Your task to perform on an android device: choose inbox layout in the gmail app Image 0: 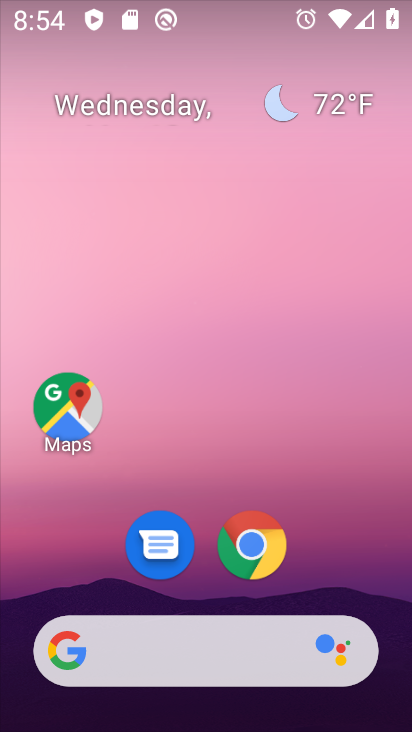
Step 0: drag from (266, 684) to (145, 249)
Your task to perform on an android device: choose inbox layout in the gmail app Image 1: 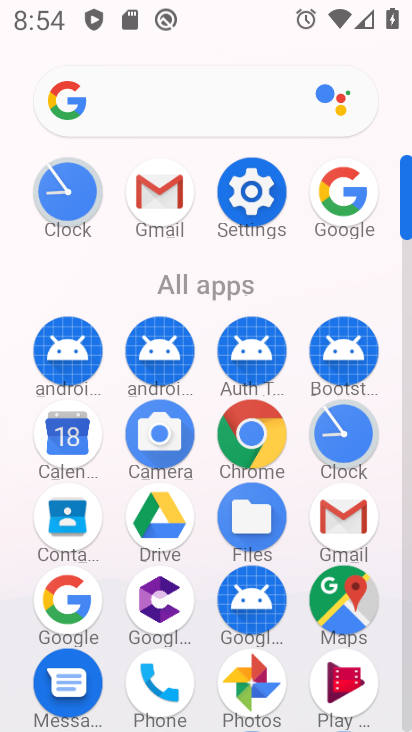
Step 1: click (325, 498)
Your task to perform on an android device: choose inbox layout in the gmail app Image 2: 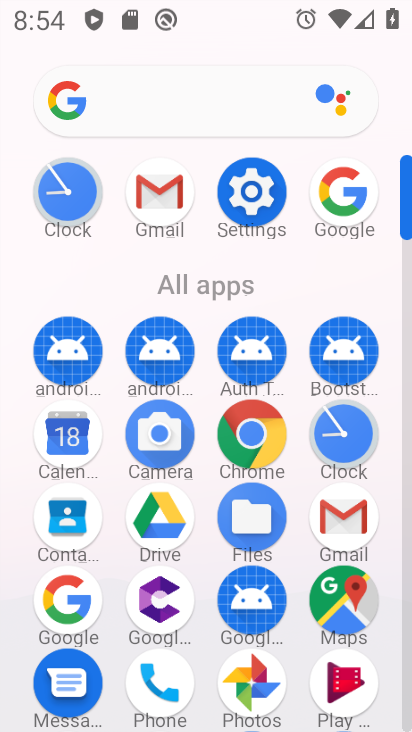
Step 2: click (325, 503)
Your task to perform on an android device: choose inbox layout in the gmail app Image 3: 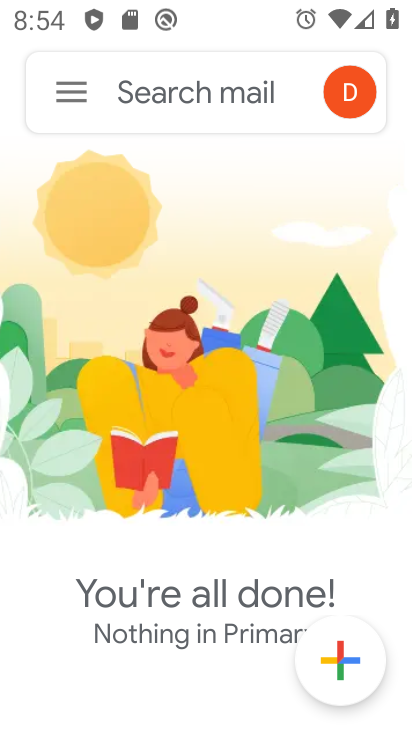
Step 3: click (48, 93)
Your task to perform on an android device: choose inbox layout in the gmail app Image 4: 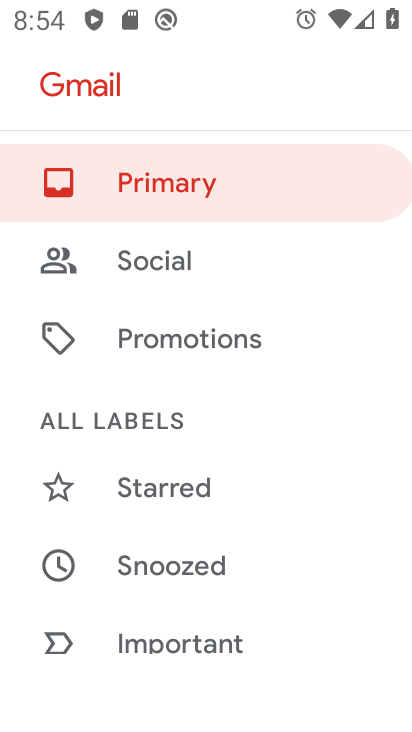
Step 4: drag from (173, 540) to (161, 191)
Your task to perform on an android device: choose inbox layout in the gmail app Image 5: 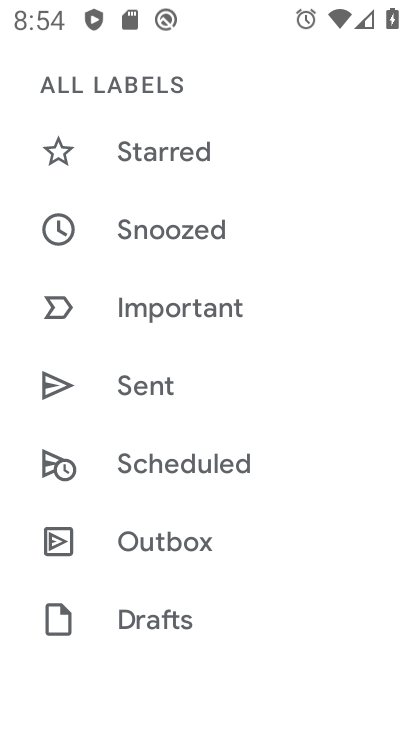
Step 5: click (204, 28)
Your task to perform on an android device: choose inbox layout in the gmail app Image 6: 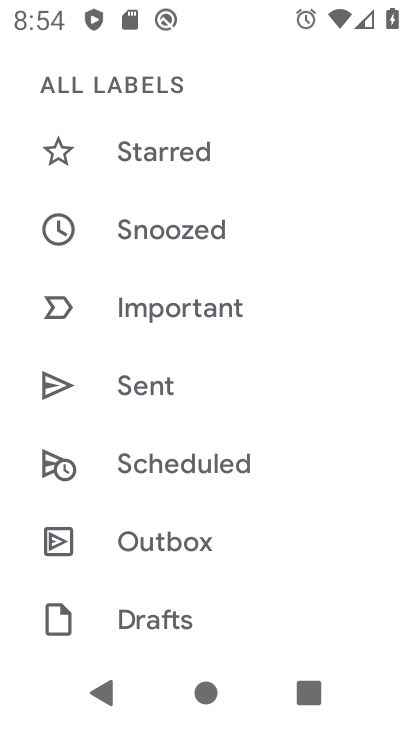
Step 6: drag from (181, 476) to (173, 142)
Your task to perform on an android device: choose inbox layout in the gmail app Image 7: 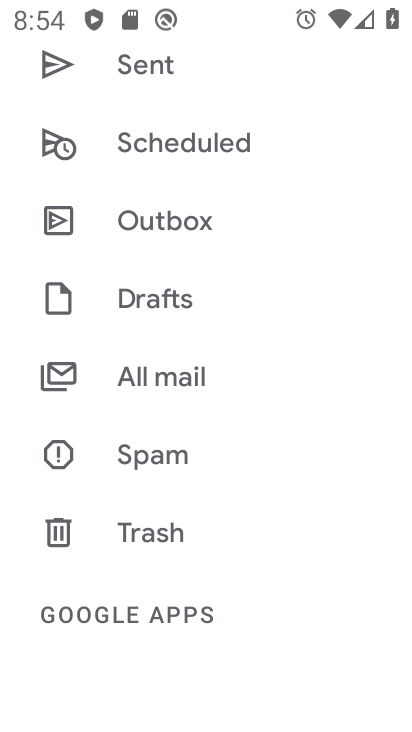
Step 7: drag from (210, 503) to (204, 141)
Your task to perform on an android device: choose inbox layout in the gmail app Image 8: 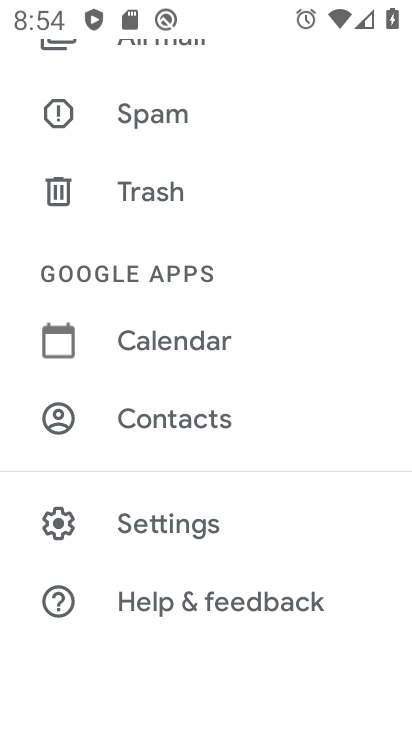
Step 8: drag from (136, 171) to (253, 593)
Your task to perform on an android device: choose inbox layout in the gmail app Image 9: 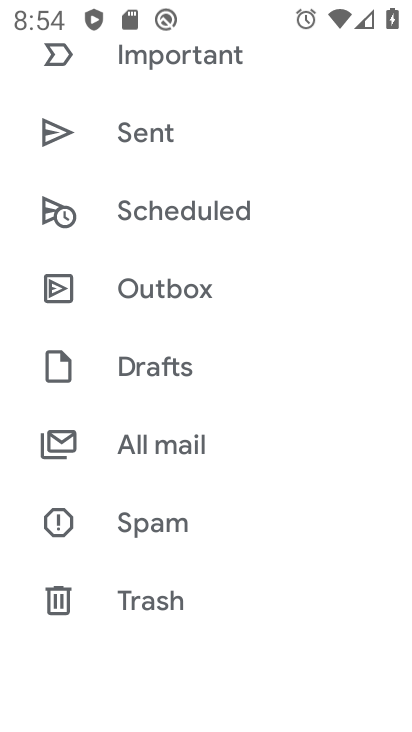
Step 9: click (160, 451)
Your task to perform on an android device: choose inbox layout in the gmail app Image 10: 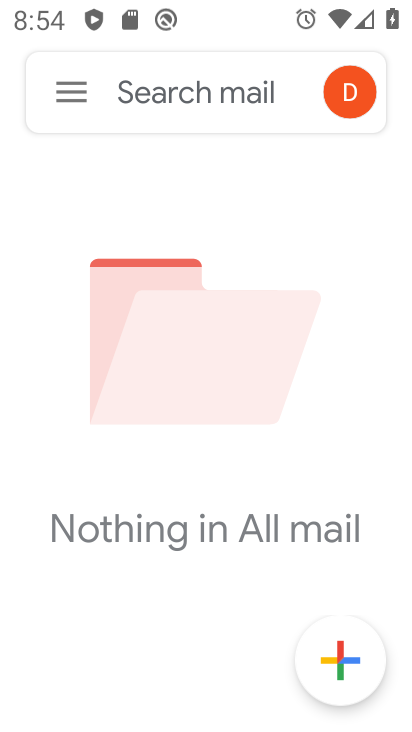
Step 10: click (156, 440)
Your task to perform on an android device: choose inbox layout in the gmail app Image 11: 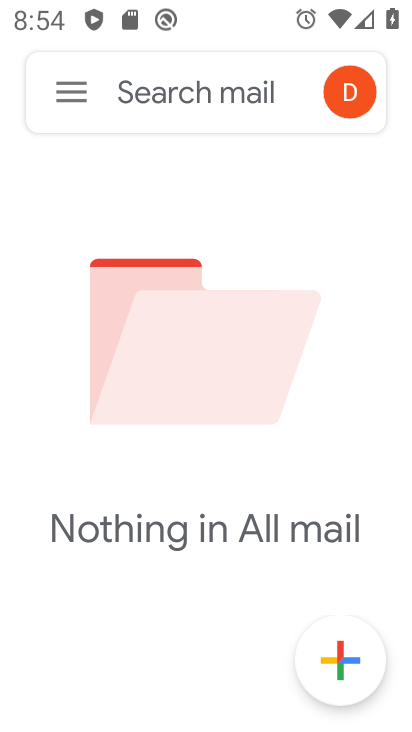
Step 11: task complete